Your task to perform on an android device: Go to battery settings Image 0: 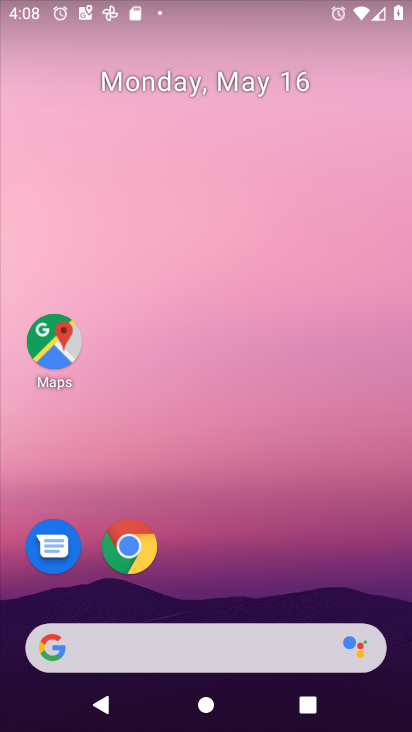
Step 0: drag from (307, 573) to (307, 120)
Your task to perform on an android device: Go to battery settings Image 1: 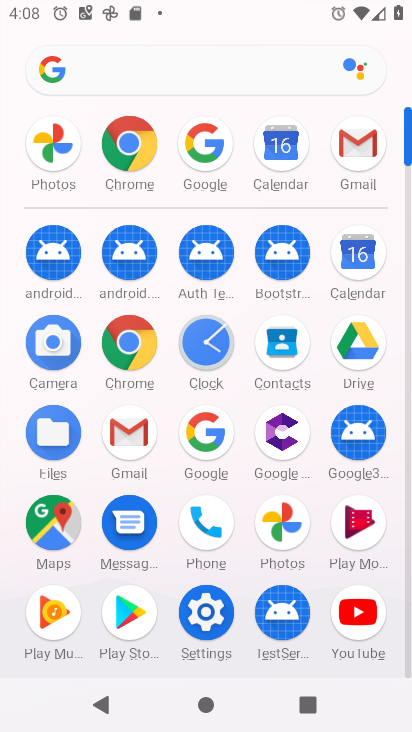
Step 1: click (217, 612)
Your task to perform on an android device: Go to battery settings Image 2: 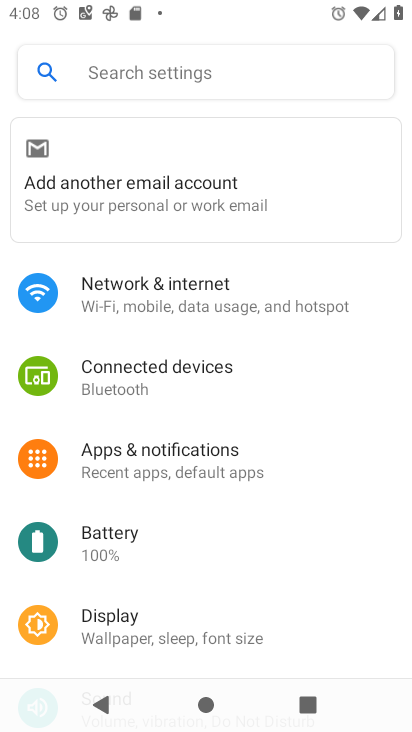
Step 2: drag from (332, 575) to (332, 423)
Your task to perform on an android device: Go to battery settings Image 3: 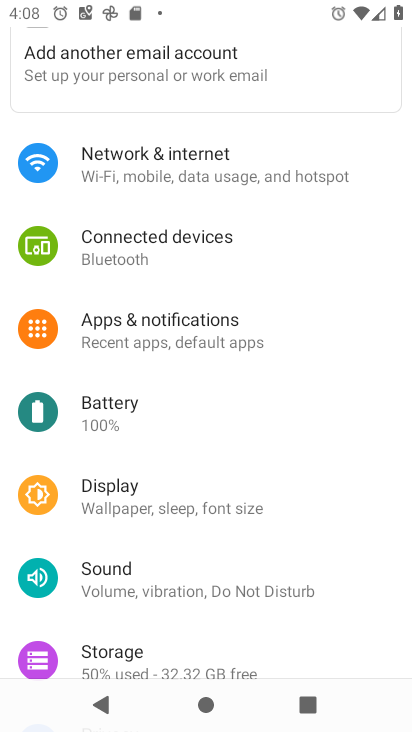
Step 3: drag from (352, 635) to (361, 422)
Your task to perform on an android device: Go to battery settings Image 4: 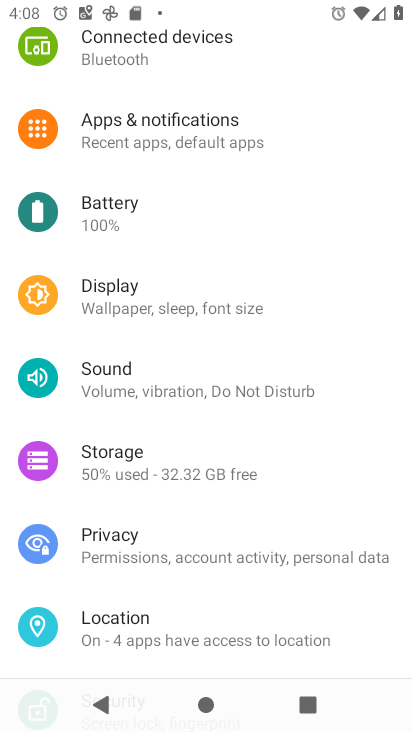
Step 4: drag from (352, 616) to (352, 429)
Your task to perform on an android device: Go to battery settings Image 5: 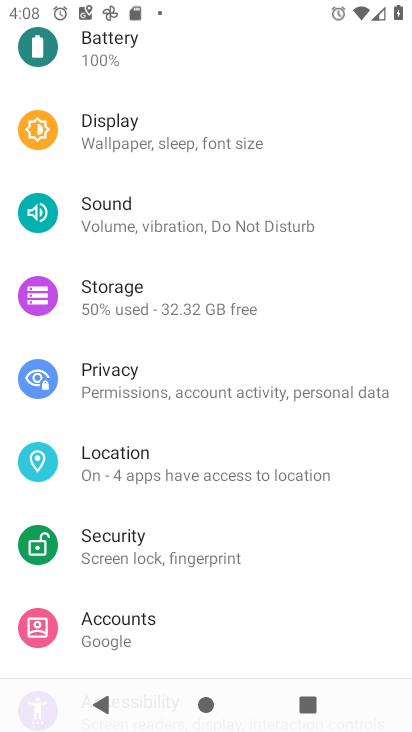
Step 5: drag from (343, 565) to (339, 429)
Your task to perform on an android device: Go to battery settings Image 6: 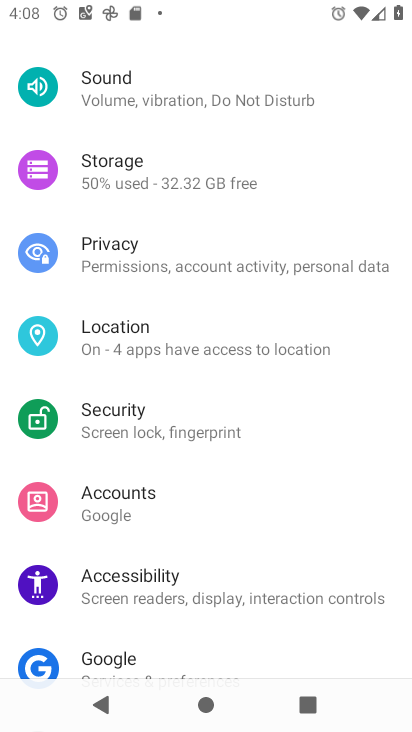
Step 6: drag from (341, 645) to (347, 442)
Your task to perform on an android device: Go to battery settings Image 7: 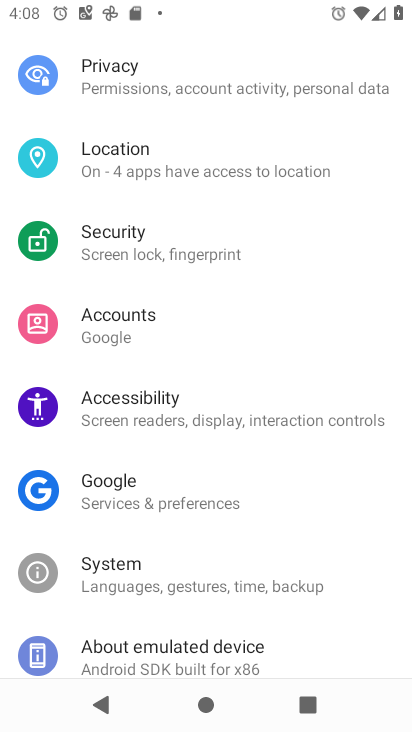
Step 7: drag from (356, 613) to (357, 357)
Your task to perform on an android device: Go to battery settings Image 8: 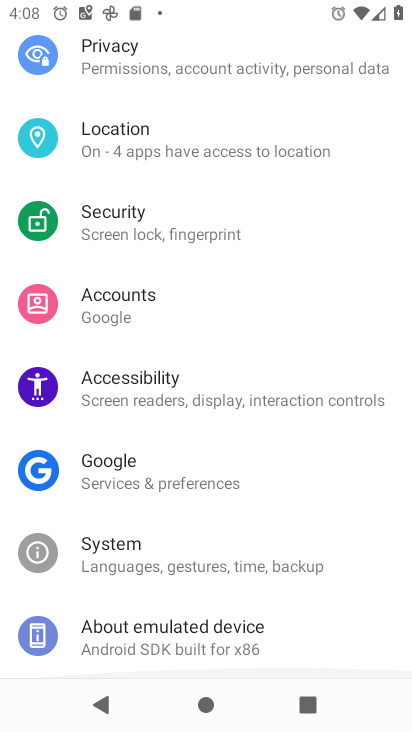
Step 8: drag from (355, 279) to (353, 448)
Your task to perform on an android device: Go to battery settings Image 9: 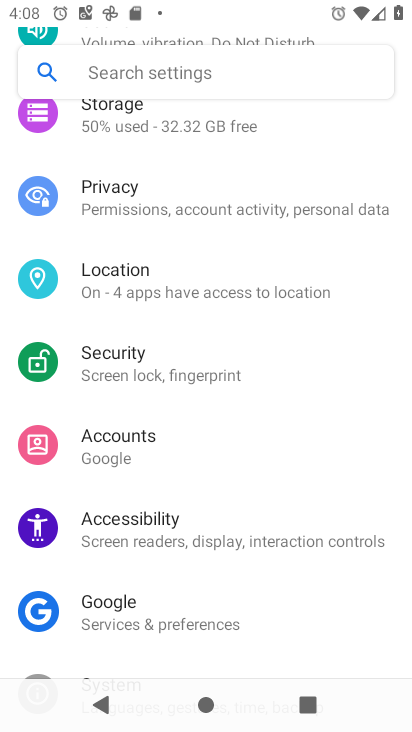
Step 9: drag from (371, 273) to (371, 433)
Your task to perform on an android device: Go to battery settings Image 10: 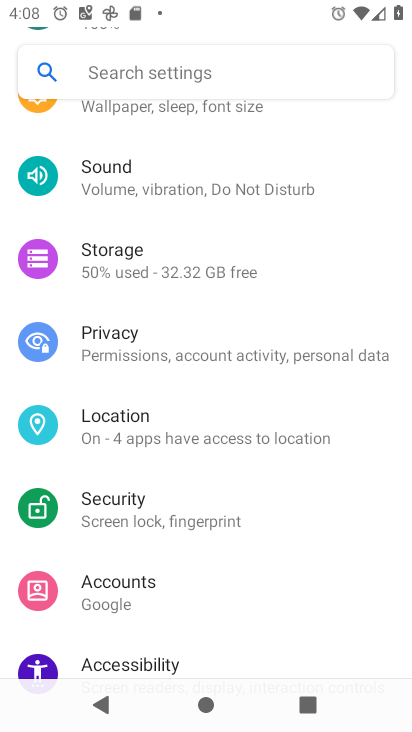
Step 10: drag from (357, 216) to (357, 416)
Your task to perform on an android device: Go to battery settings Image 11: 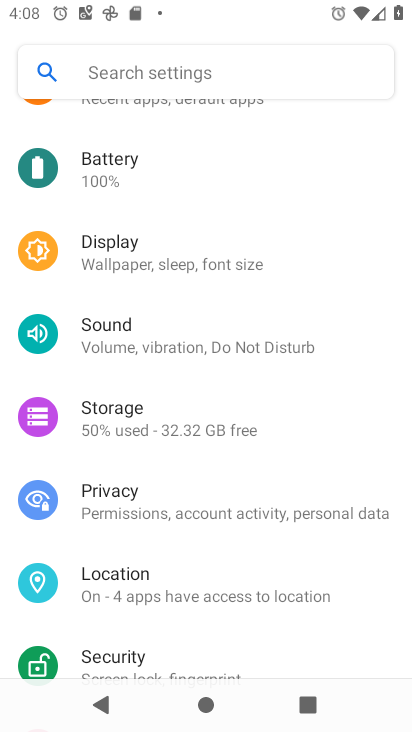
Step 11: click (114, 163)
Your task to perform on an android device: Go to battery settings Image 12: 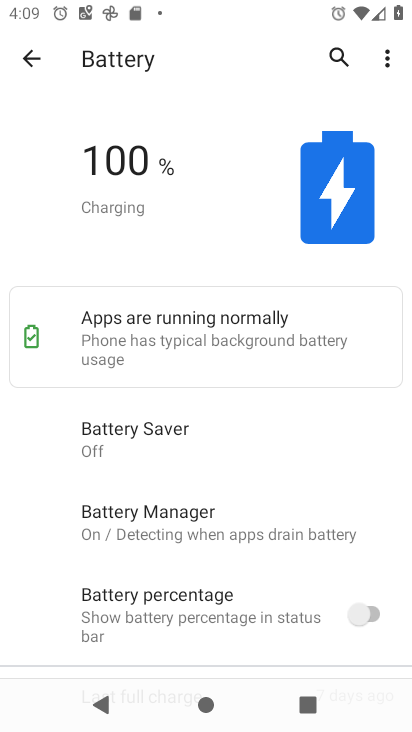
Step 12: task complete